Your task to perform on an android device: Go to CNN.com Image 0: 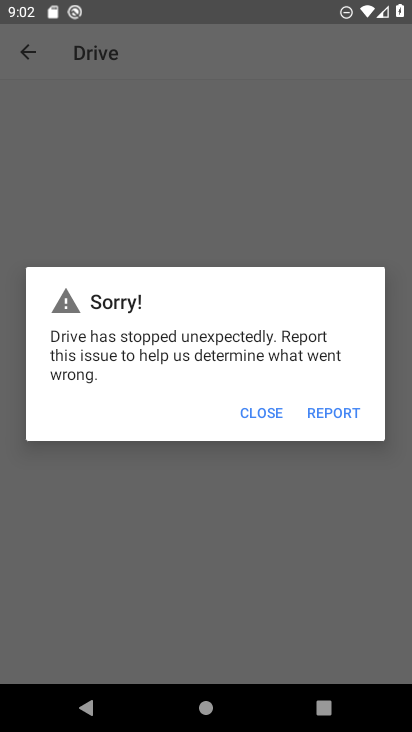
Step 0: click (396, 506)
Your task to perform on an android device: Go to CNN.com Image 1: 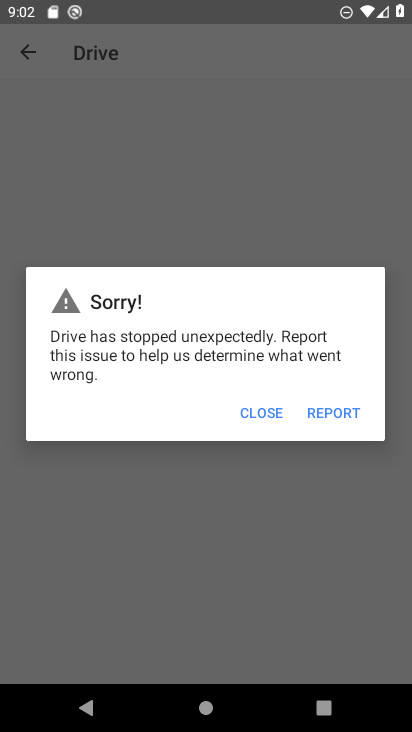
Step 1: press home button
Your task to perform on an android device: Go to CNN.com Image 2: 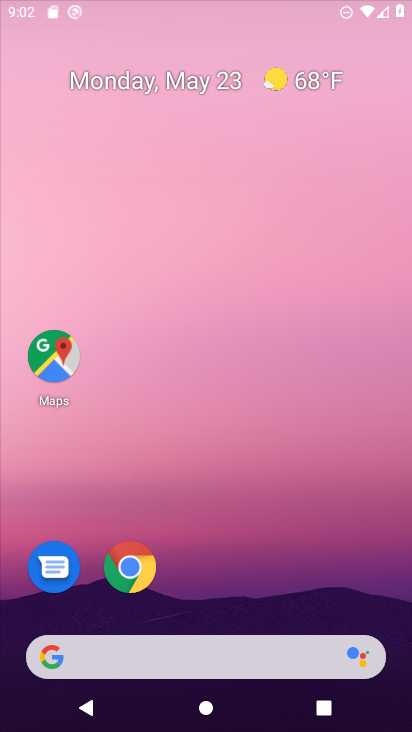
Step 2: drag from (238, 593) to (366, 131)
Your task to perform on an android device: Go to CNN.com Image 3: 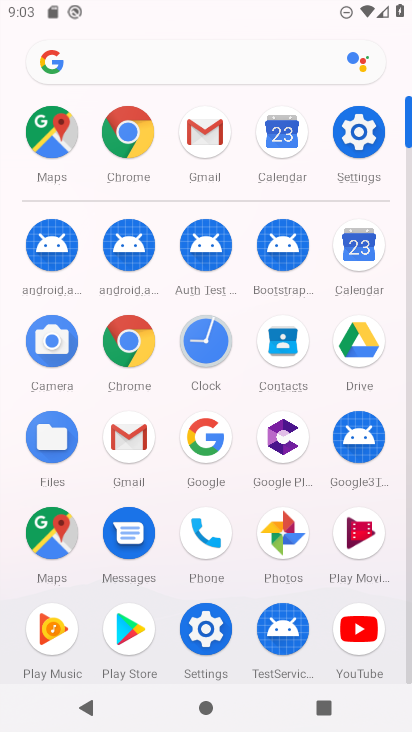
Step 3: click (160, 63)
Your task to perform on an android device: Go to CNN.com Image 4: 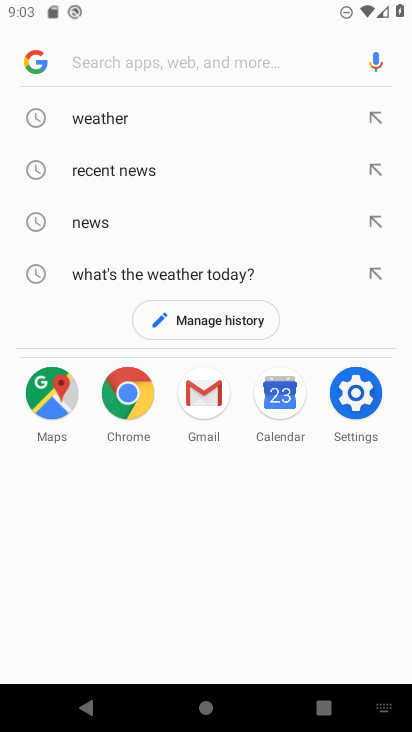
Step 4: type "cnn.com"
Your task to perform on an android device: Go to CNN.com Image 5: 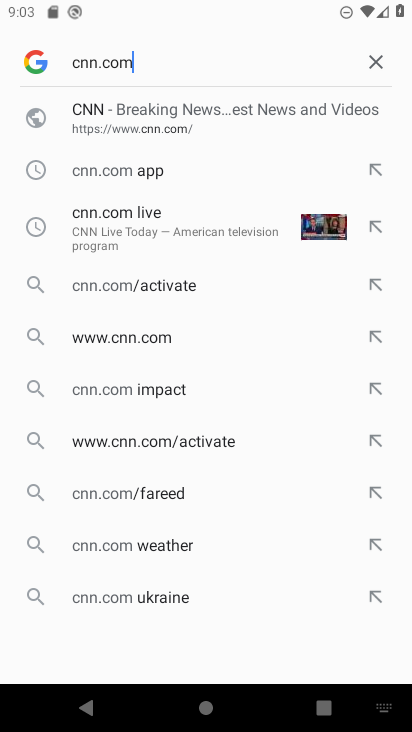
Step 5: click (117, 131)
Your task to perform on an android device: Go to CNN.com Image 6: 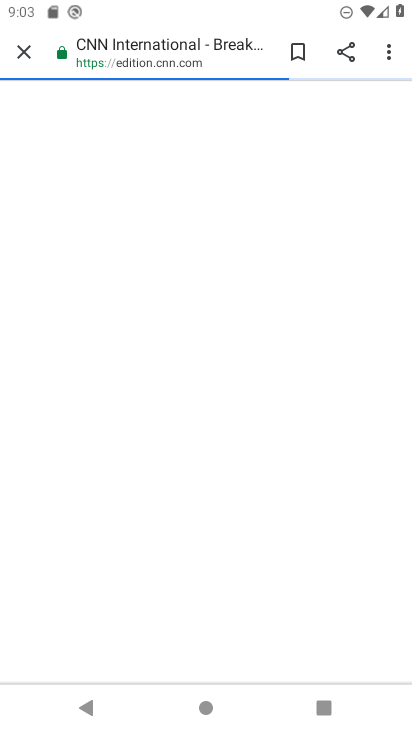
Step 6: task complete